Your task to perform on an android device: Go to Reddit.com Image 0: 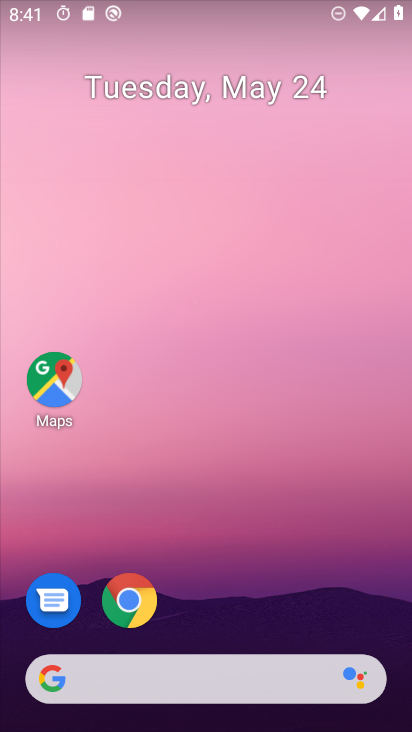
Step 0: click (132, 592)
Your task to perform on an android device: Go to Reddit.com Image 1: 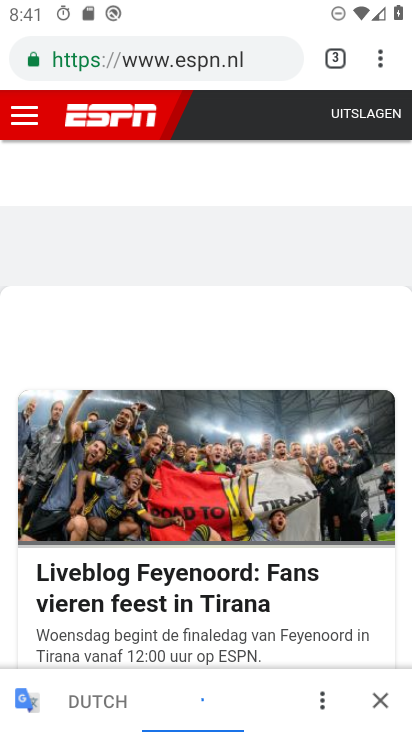
Step 1: click (336, 52)
Your task to perform on an android device: Go to Reddit.com Image 2: 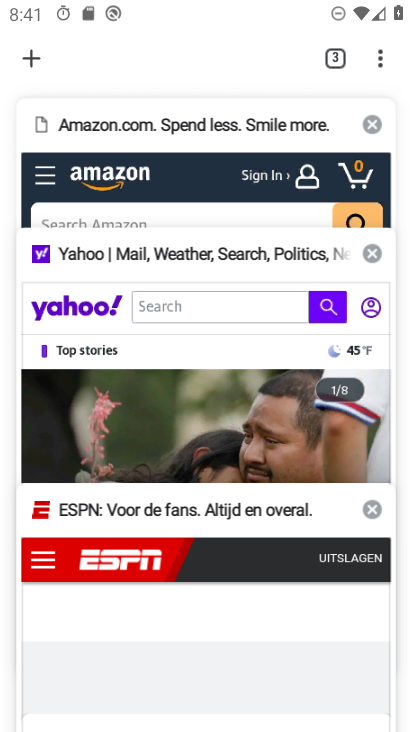
Step 2: click (38, 56)
Your task to perform on an android device: Go to Reddit.com Image 3: 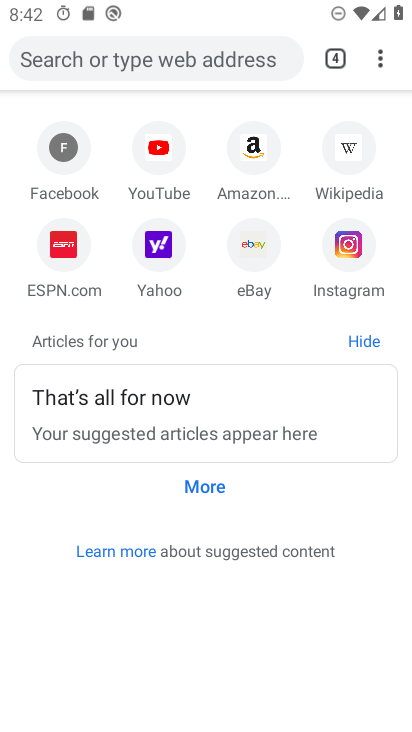
Step 3: click (87, 52)
Your task to perform on an android device: Go to Reddit.com Image 4: 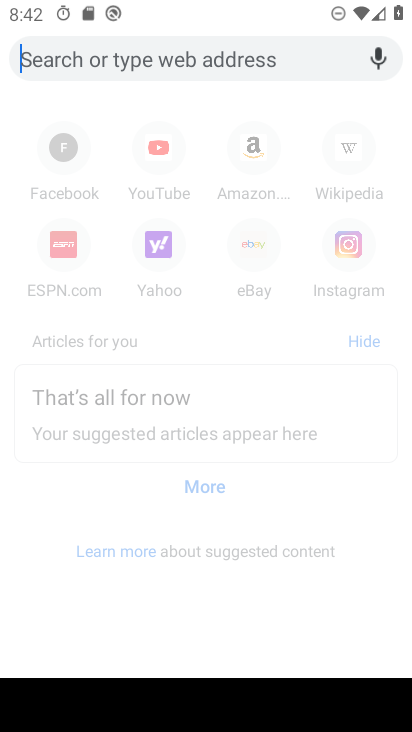
Step 4: type "reddit.com"
Your task to perform on an android device: Go to Reddit.com Image 5: 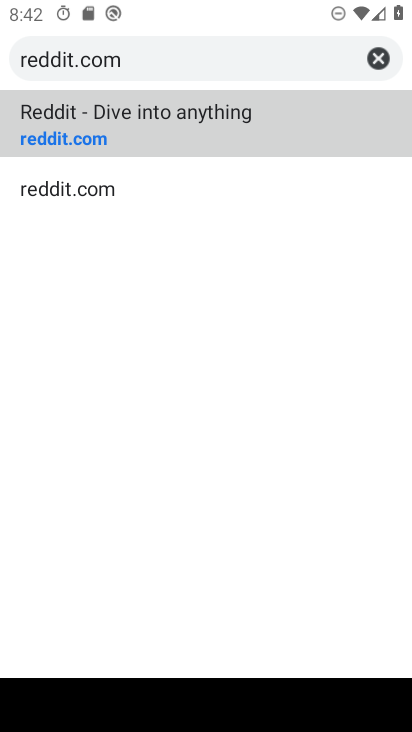
Step 5: click (77, 126)
Your task to perform on an android device: Go to Reddit.com Image 6: 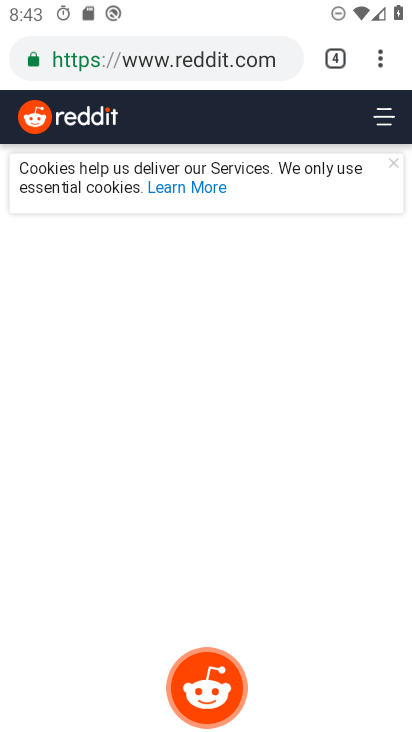
Step 6: task complete